Your task to perform on an android device: Open the phone app and click the voicemail tab. Image 0: 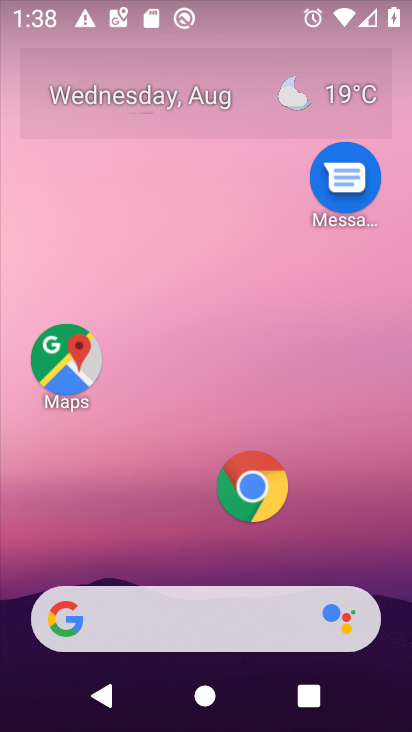
Step 0: drag from (183, 484) to (255, 46)
Your task to perform on an android device: Open the phone app and click the voicemail tab. Image 1: 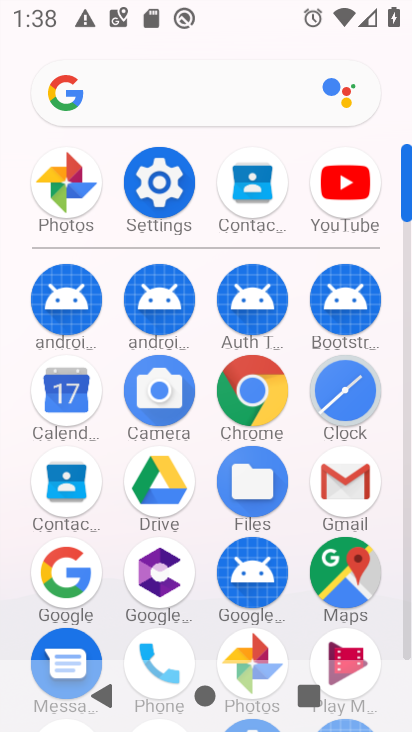
Step 1: click (167, 643)
Your task to perform on an android device: Open the phone app and click the voicemail tab. Image 2: 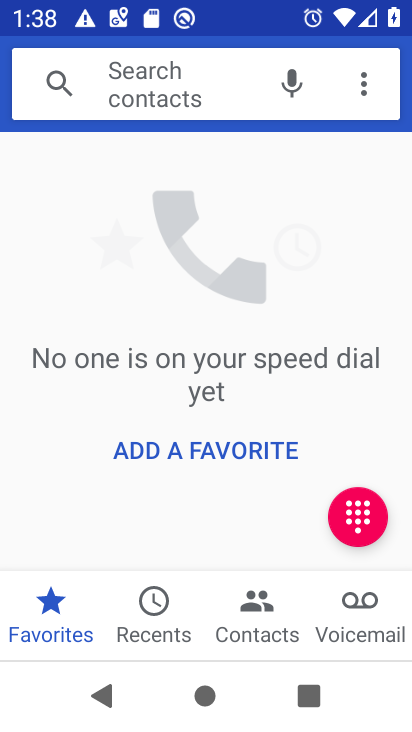
Step 2: click (348, 622)
Your task to perform on an android device: Open the phone app and click the voicemail tab. Image 3: 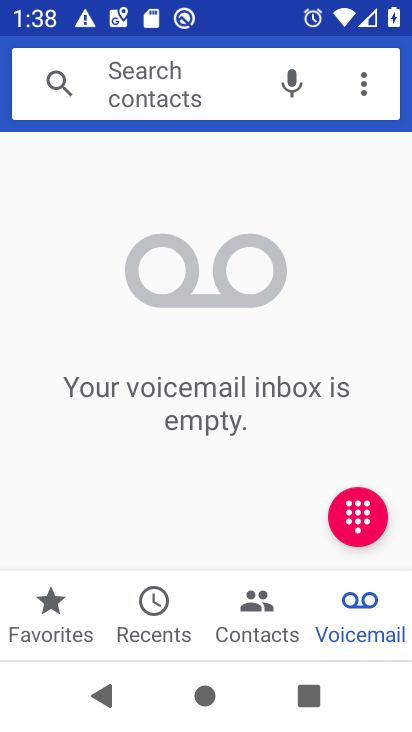
Step 3: task complete